Your task to perform on an android device: Go to Yahoo.com Image 0: 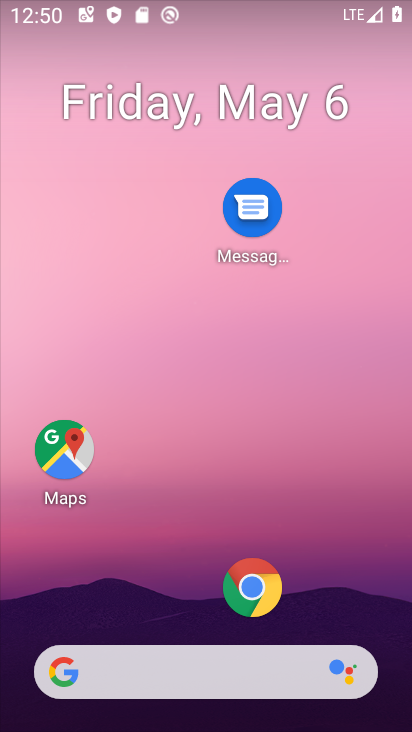
Step 0: click (258, 596)
Your task to perform on an android device: Go to Yahoo.com Image 1: 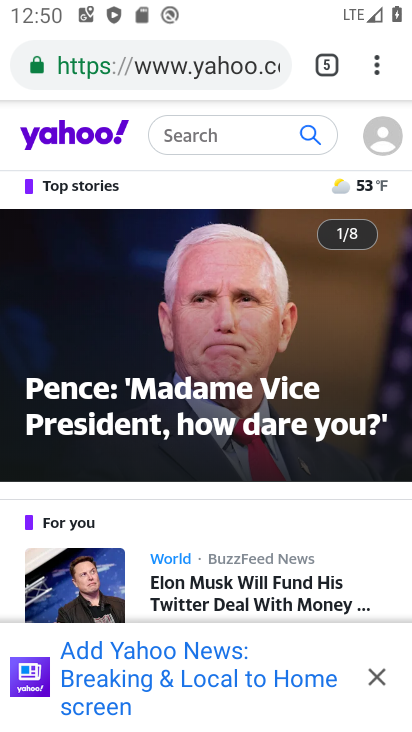
Step 1: task complete